Your task to perform on an android device: Empty the shopping cart on bestbuy.com. Image 0: 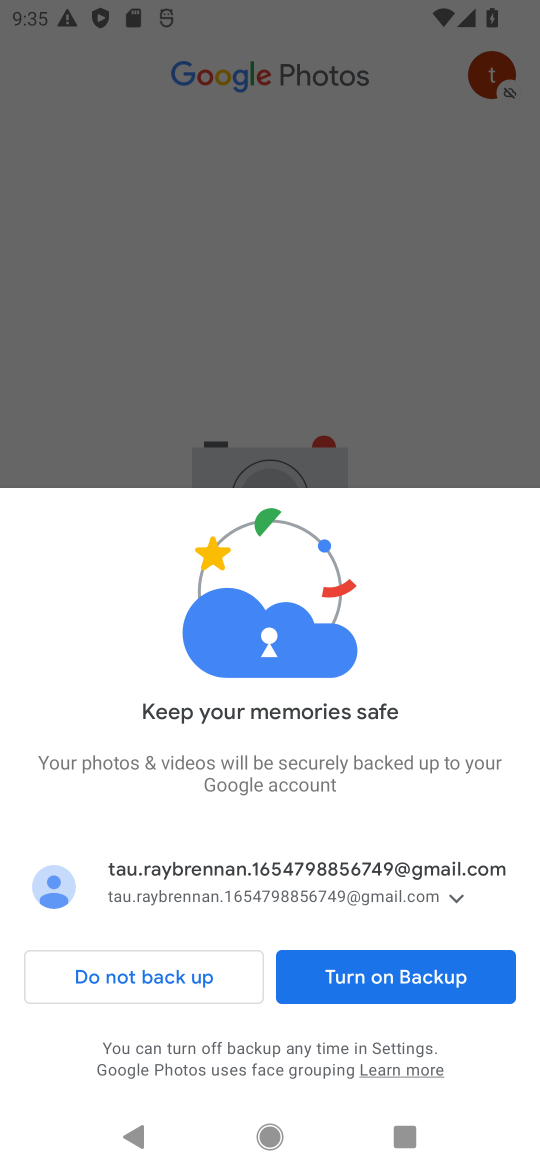
Step 0: press home button
Your task to perform on an android device: Empty the shopping cart on bestbuy.com. Image 1: 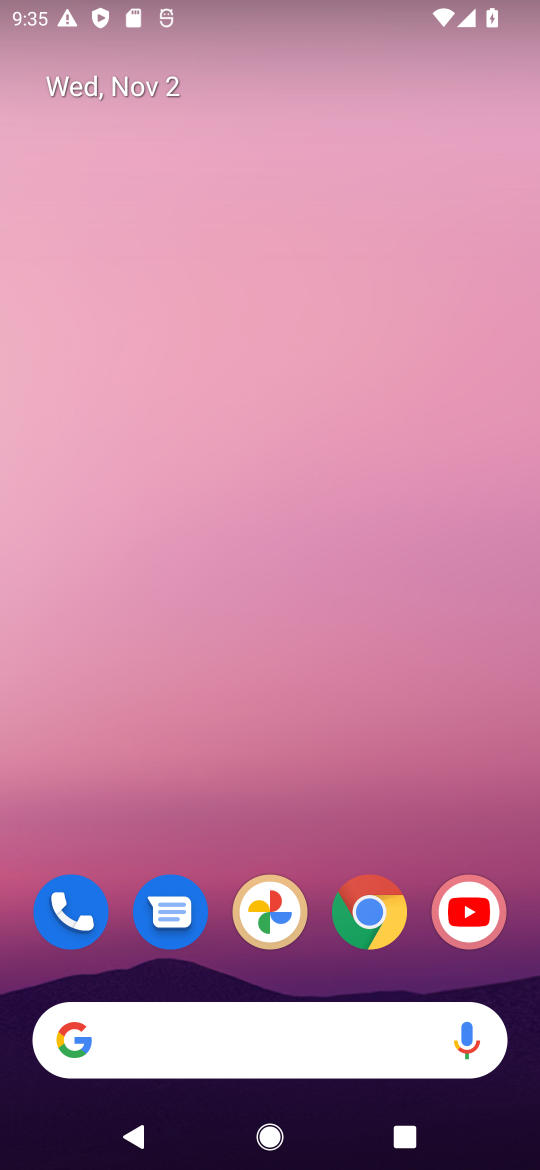
Step 1: drag from (326, 1096) to (131, 37)
Your task to perform on an android device: Empty the shopping cart on bestbuy.com. Image 2: 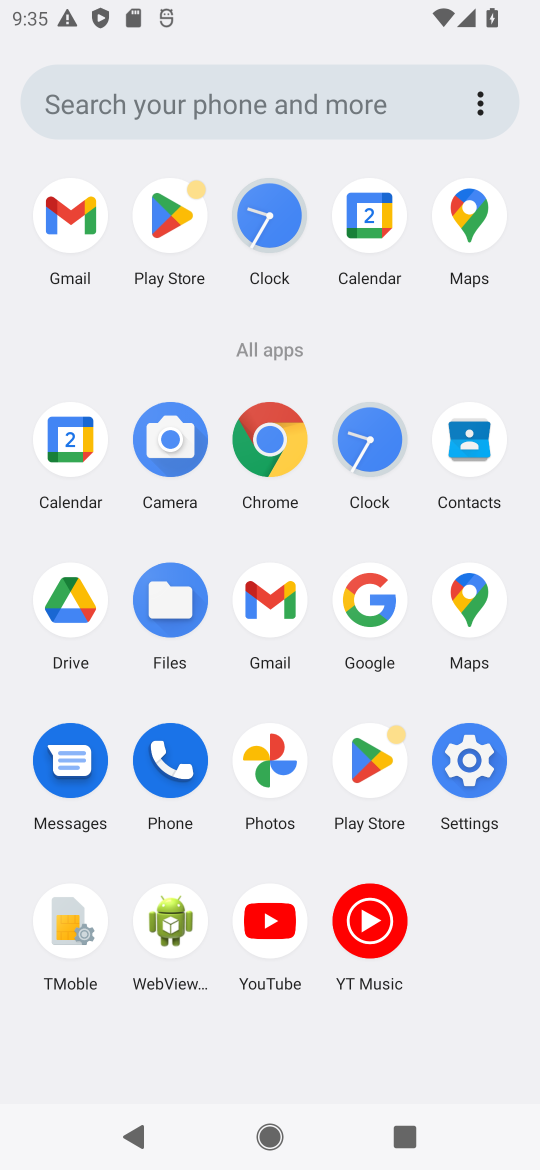
Step 2: click (272, 450)
Your task to perform on an android device: Empty the shopping cart on bestbuy.com. Image 3: 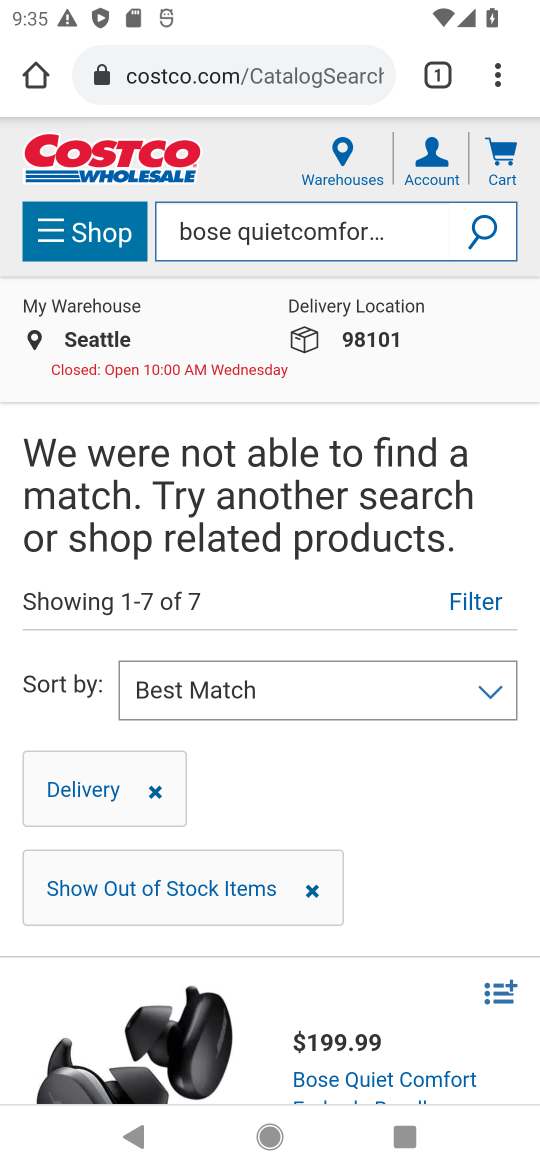
Step 3: click (172, 82)
Your task to perform on an android device: Empty the shopping cart on bestbuy.com. Image 4: 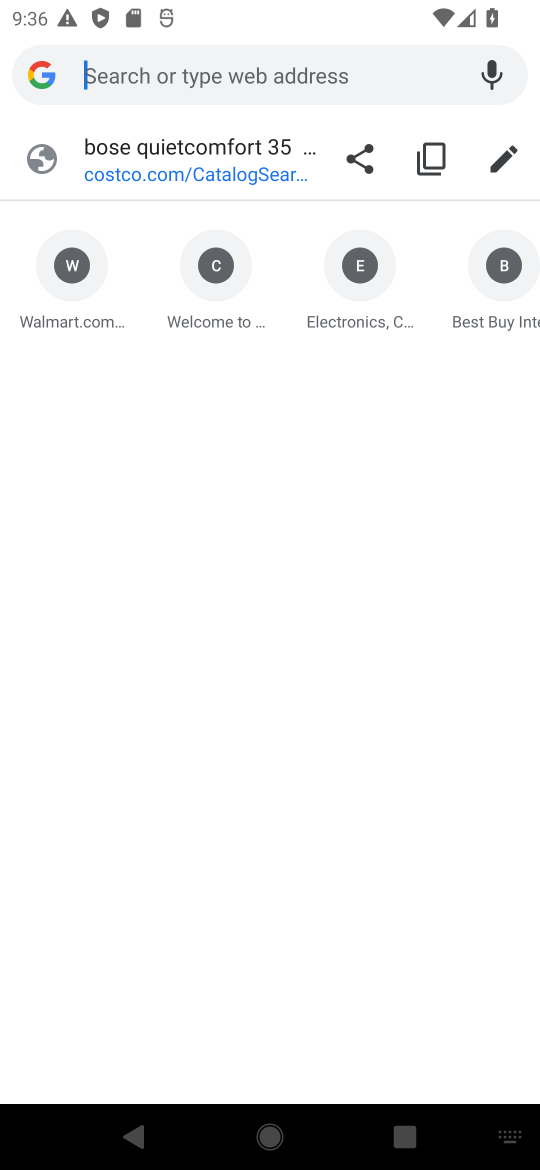
Step 4: type "bestbuy.com"
Your task to perform on an android device: Empty the shopping cart on bestbuy.com. Image 5: 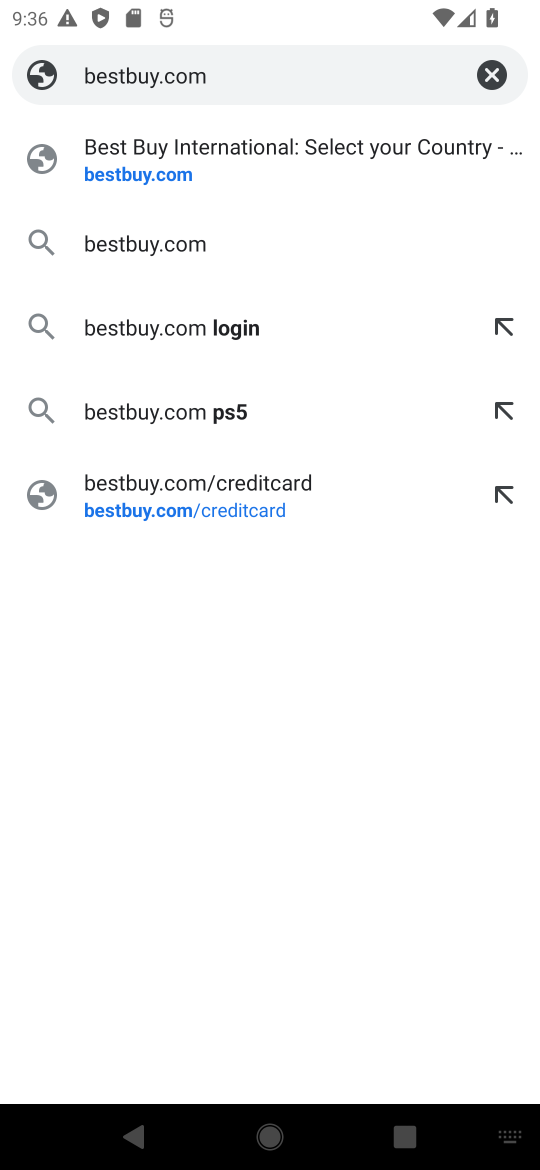
Step 5: click (121, 169)
Your task to perform on an android device: Empty the shopping cart on bestbuy.com. Image 6: 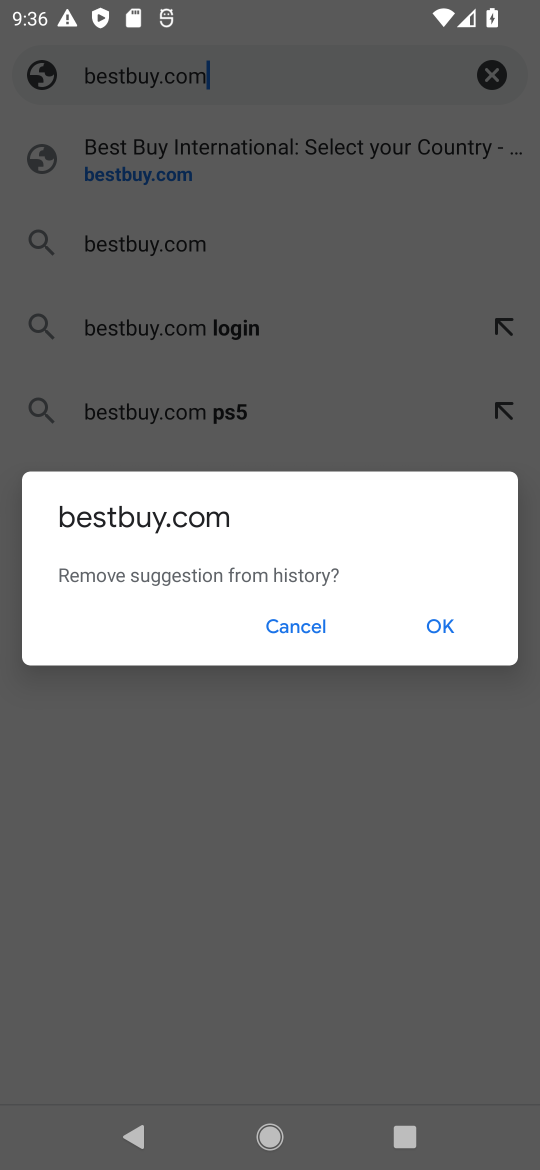
Step 6: click (441, 620)
Your task to perform on an android device: Empty the shopping cart on bestbuy.com. Image 7: 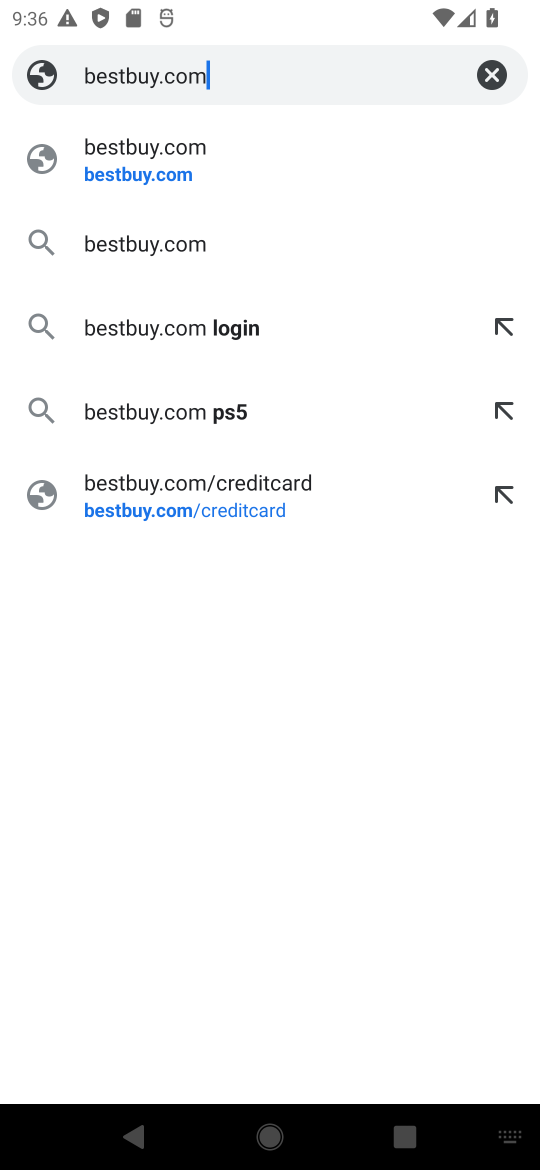
Step 7: click (159, 175)
Your task to perform on an android device: Empty the shopping cart on bestbuy.com. Image 8: 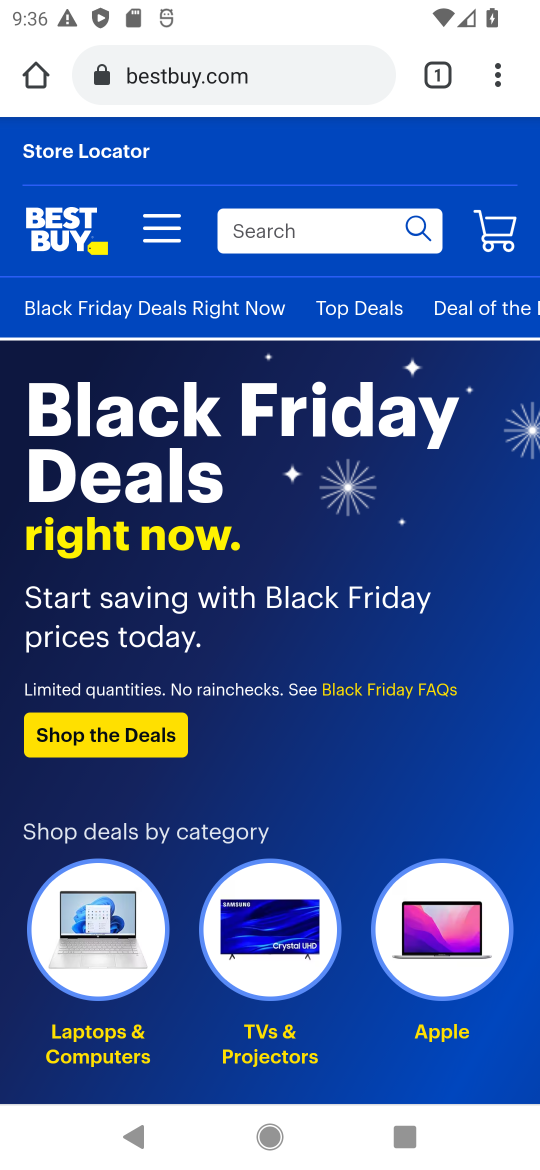
Step 8: click (265, 221)
Your task to perform on an android device: Empty the shopping cart on bestbuy.com. Image 9: 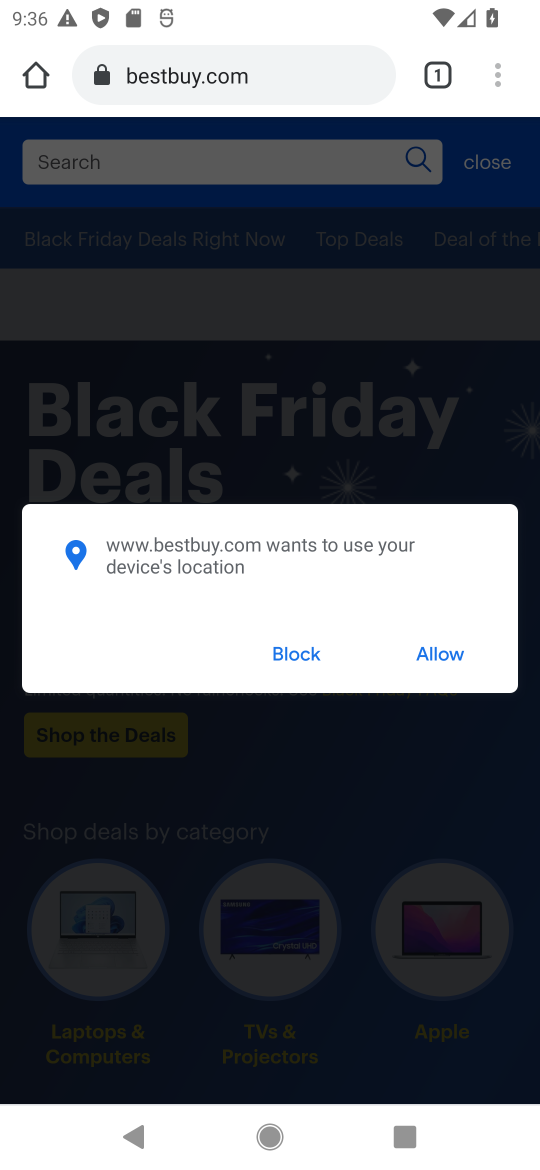
Step 9: click (434, 653)
Your task to perform on an android device: Empty the shopping cart on bestbuy.com. Image 10: 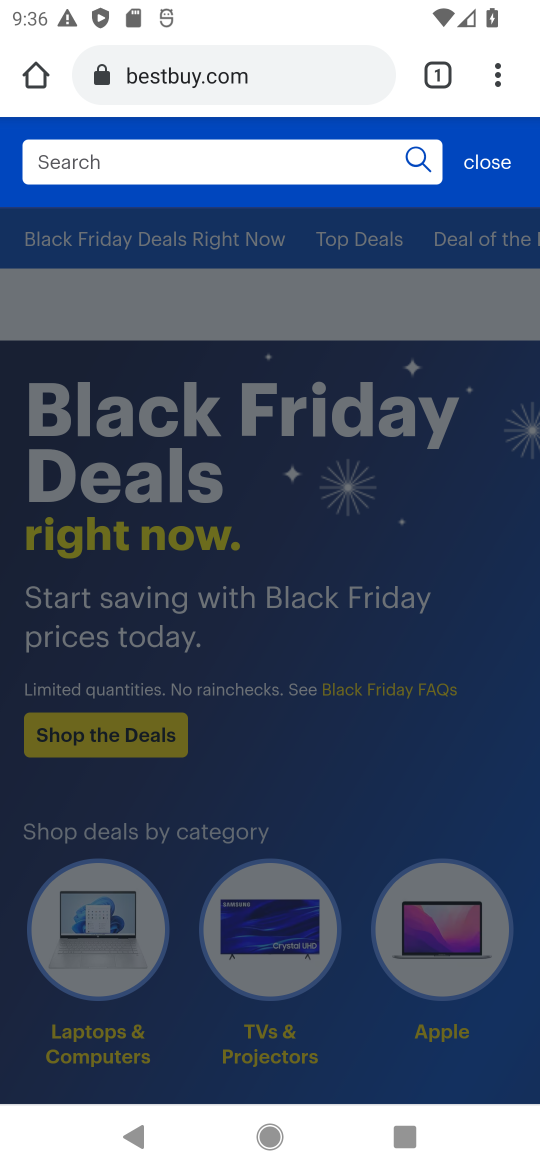
Step 10: press back button
Your task to perform on an android device: Empty the shopping cart on bestbuy.com. Image 11: 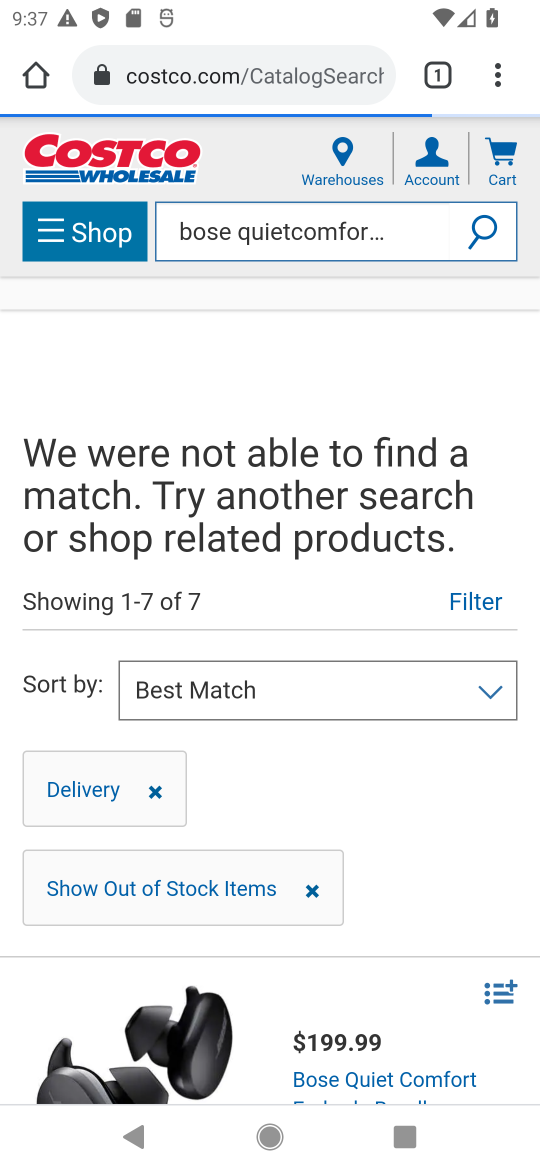
Step 11: click (503, 159)
Your task to perform on an android device: Empty the shopping cart on bestbuy.com. Image 12: 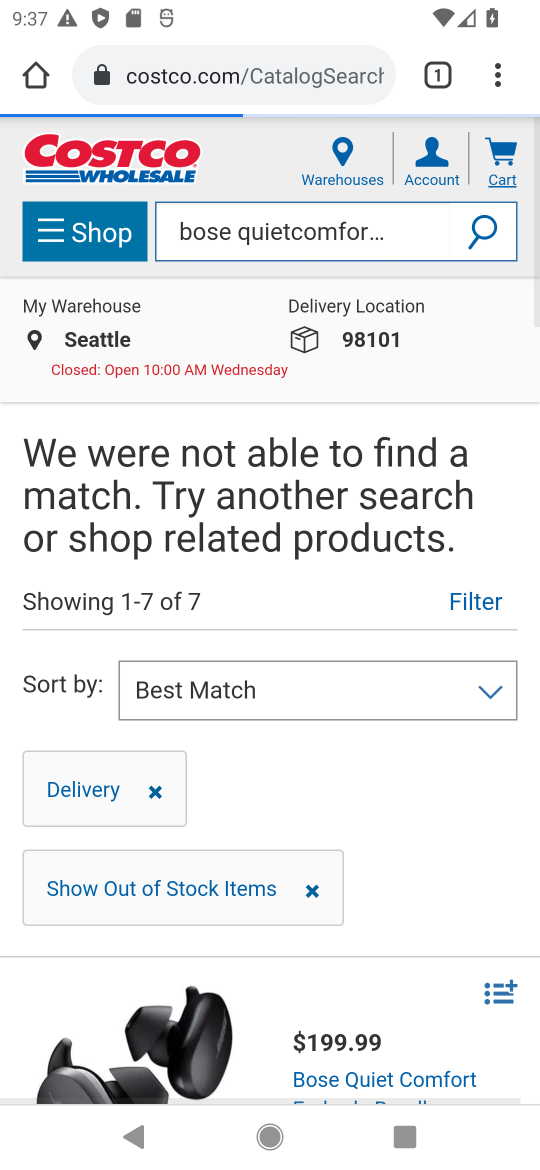
Step 12: task complete